Your task to perform on an android device: Go to Maps Image 0: 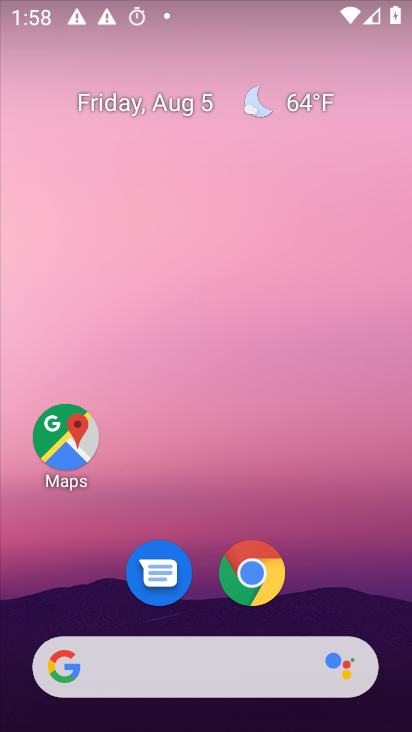
Step 0: press home button
Your task to perform on an android device: Go to Maps Image 1: 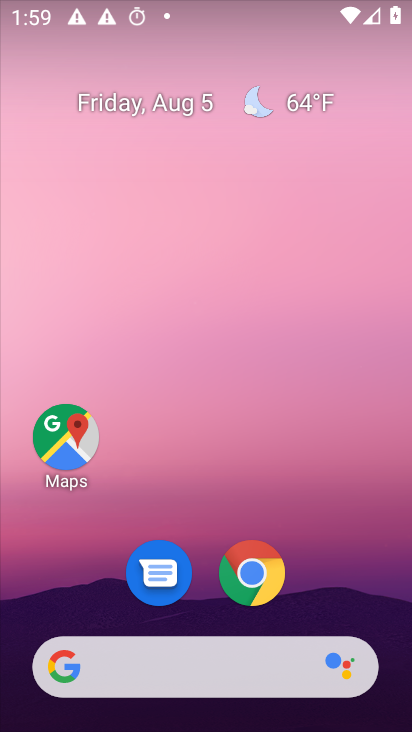
Step 1: drag from (333, 531) to (329, 113)
Your task to perform on an android device: Go to Maps Image 2: 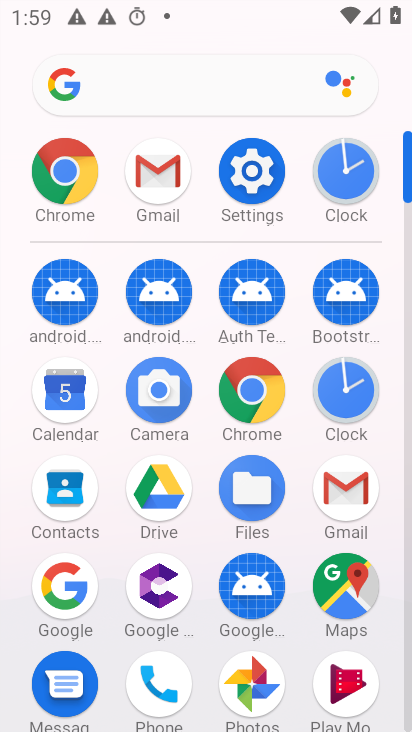
Step 2: click (331, 600)
Your task to perform on an android device: Go to Maps Image 3: 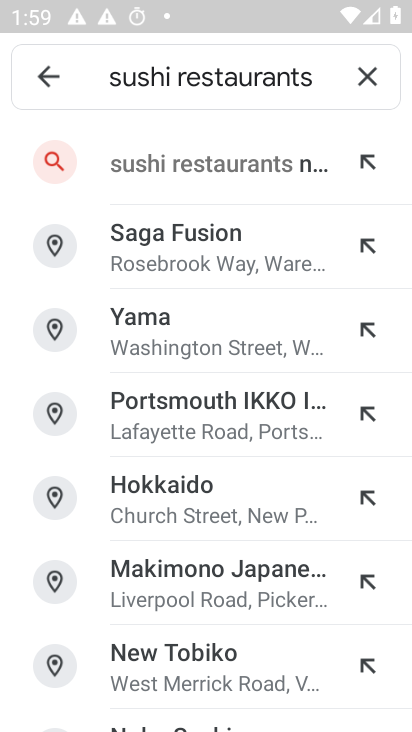
Step 3: task complete